Your task to perform on an android device: turn on bluetooth scan Image 0: 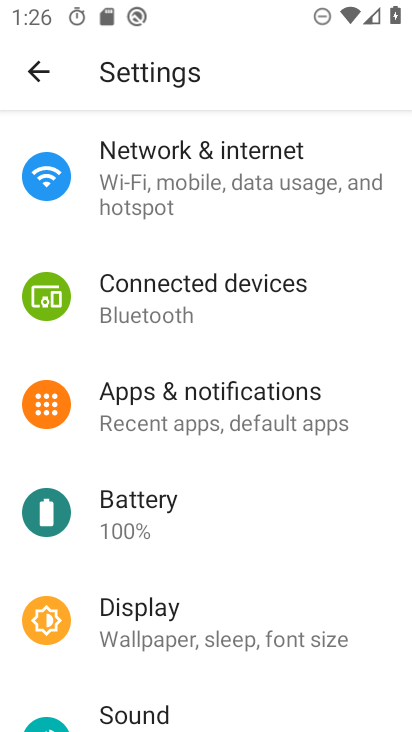
Step 0: press home button
Your task to perform on an android device: turn on bluetooth scan Image 1: 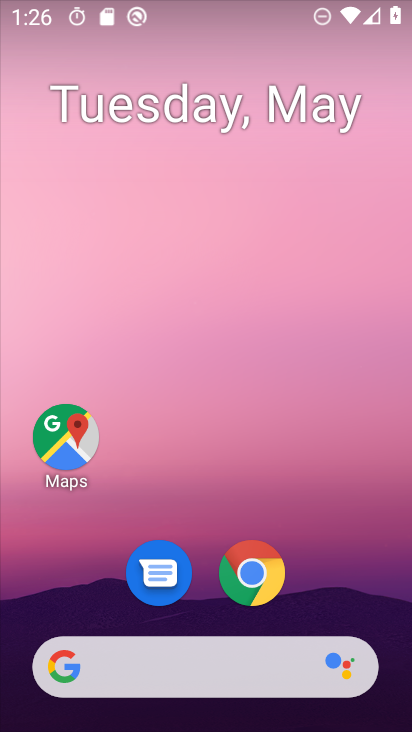
Step 1: drag from (349, 519) to (319, 99)
Your task to perform on an android device: turn on bluetooth scan Image 2: 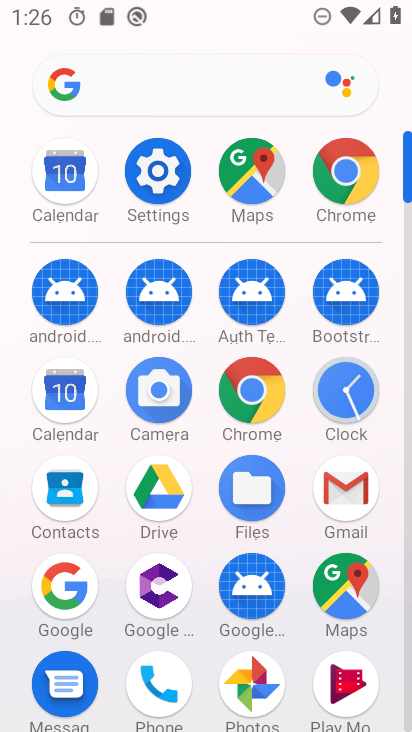
Step 2: click (155, 182)
Your task to perform on an android device: turn on bluetooth scan Image 3: 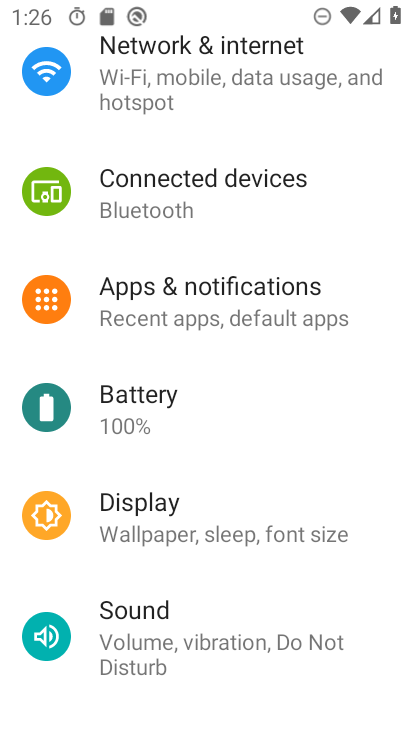
Step 3: drag from (220, 620) to (241, 313)
Your task to perform on an android device: turn on bluetooth scan Image 4: 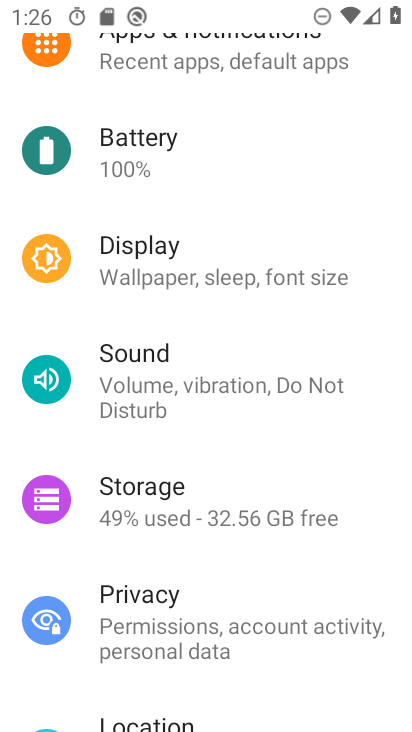
Step 4: drag from (251, 269) to (302, 502)
Your task to perform on an android device: turn on bluetooth scan Image 5: 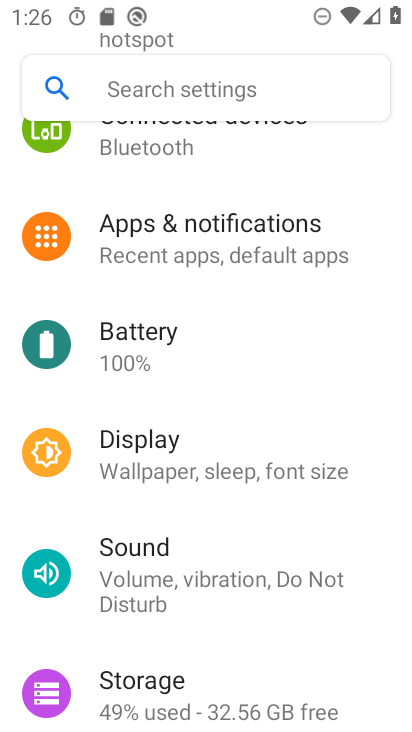
Step 5: drag from (206, 347) to (226, 524)
Your task to perform on an android device: turn on bluetooth scan Image 6: 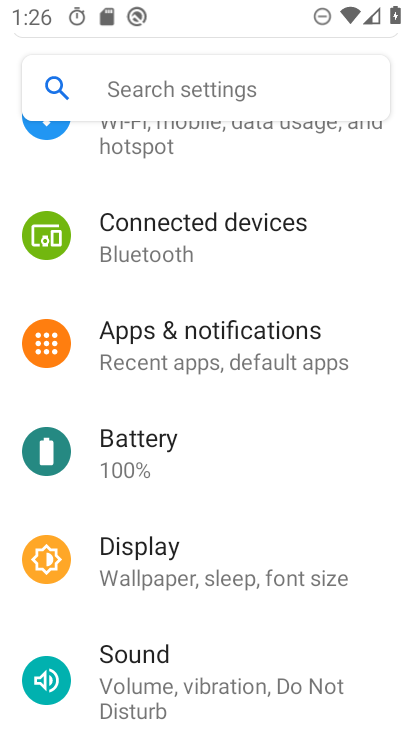
Step 6: drag from (178, 243) to (192, 538)
Your task to perform on an android device: turn on bluetooth scan Image 7: 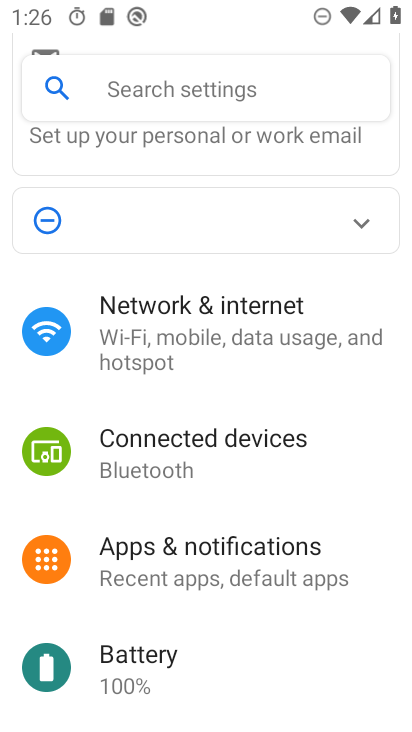
Step 7: drag from (175, 534) to (128, 210)
Your task to perform on an android device: turn on bluetooth scan Image 8: 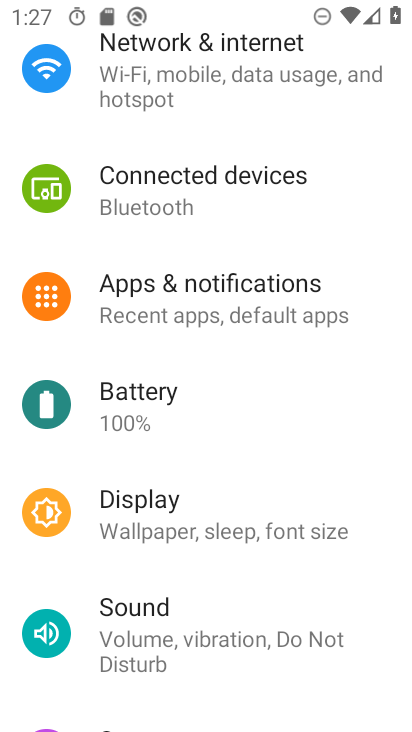
Step 8: drag from (126, 587) to (142, 232)
Your task to perform on an android device: turn on bluetooth scan Image 9: 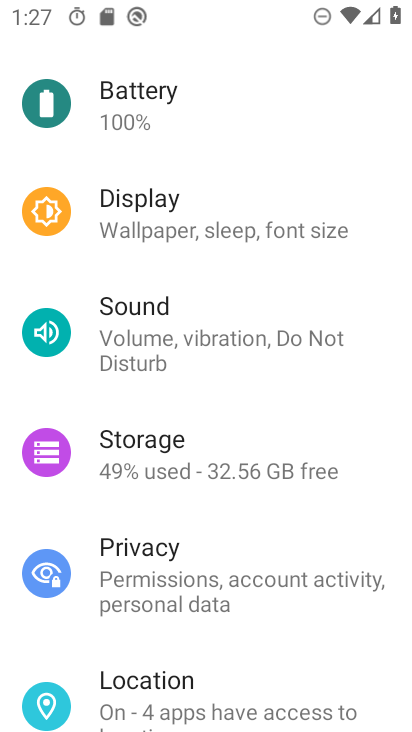
Step 9: drag from (156, 632) to (162, 351)
Your task to perform on an android device: turn on bluetooth scan Image 10: 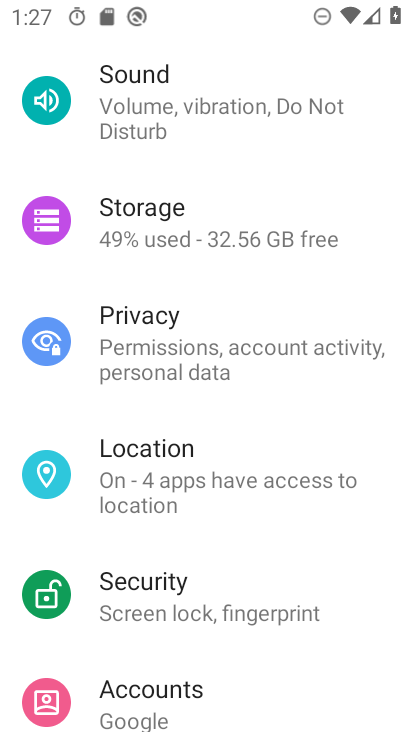
Step 10: click (147, 523)
Your task to perform on an android device: turn on bluetooth scan Image 11: 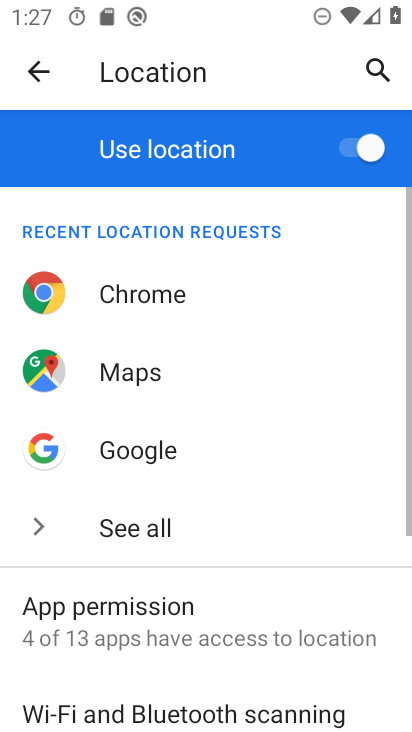
Step 11: drag from (220, 619) to (204, 309)
Your task to perform on an android device: turn on bluetooth scan Image 12: 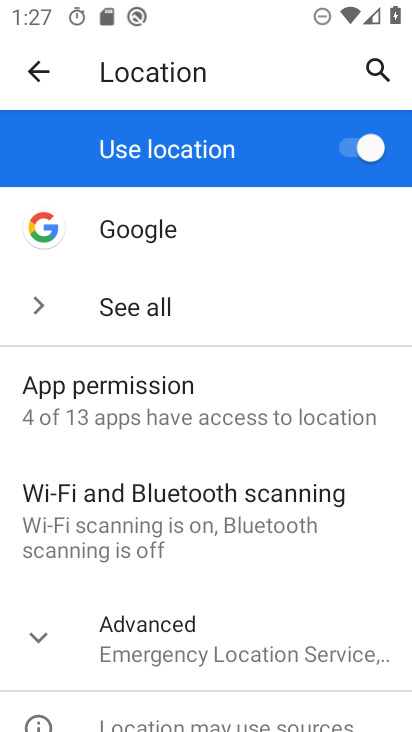
Step 12: drag from (202, 601) to (182, 229)
Your task to perform on an android device: turn on bluetooth scan Image 13: 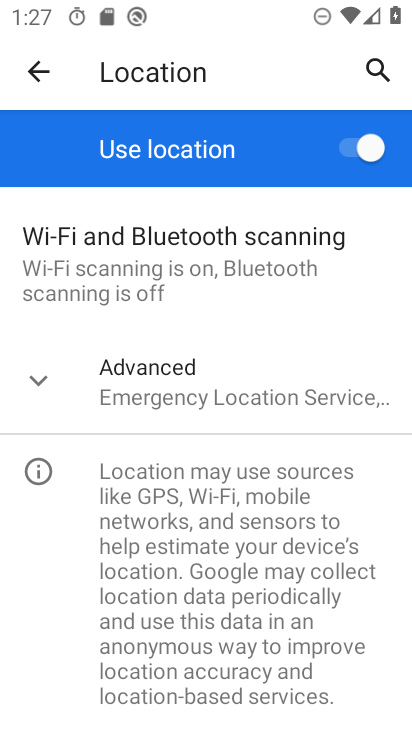
Step 13: click (181, 240)
Your task to perform on an android device: turn on bluetooth scan Image 14: 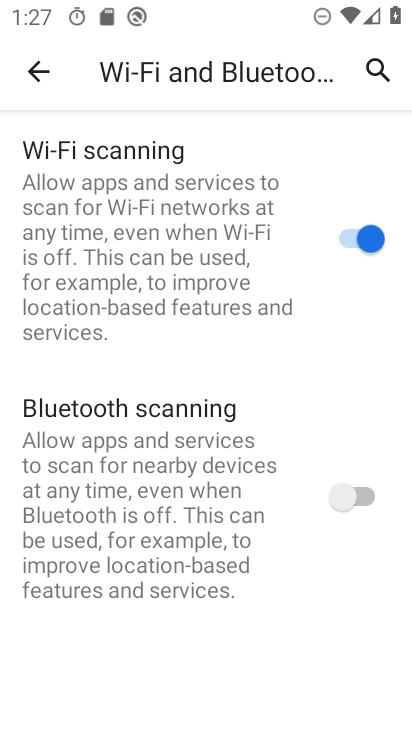
Step 14: click (360, 503)
Your task to perform on an android device: turn on bluetooth scan Image 15: 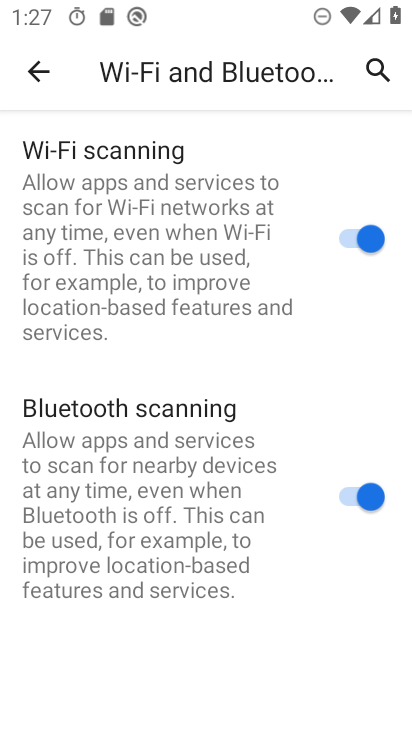
Step 15: task complete